Your task to perform on an android device: set the stopwatch Image 0: 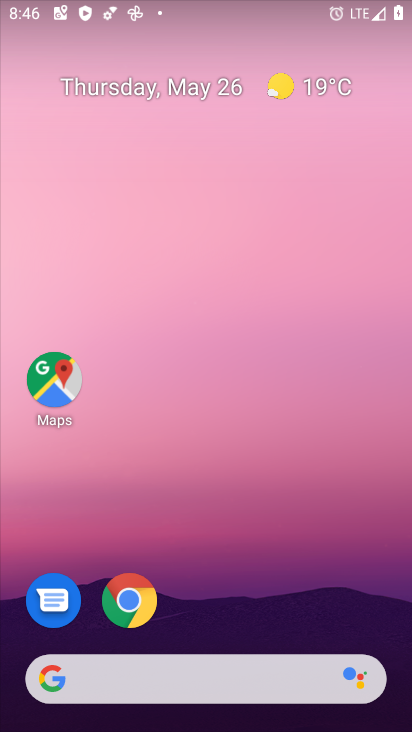
Step 0: press home button
Your task to perform on an android device: set the stopwatch Image 1: 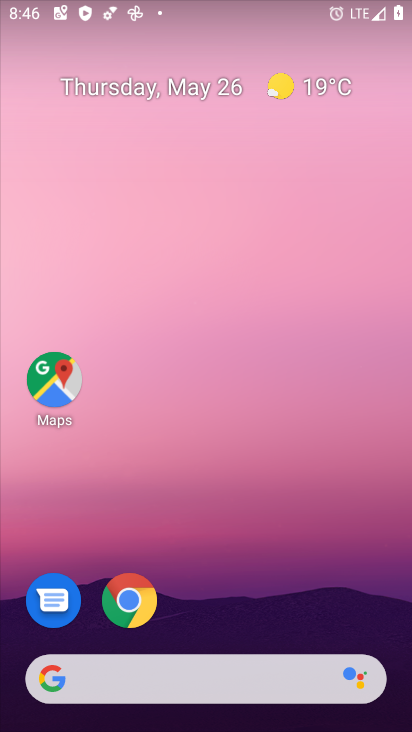
Step 1: drag from (271, 632) to (219, 309)
Your task to perform on an android device: set the stopwatch Image 2: 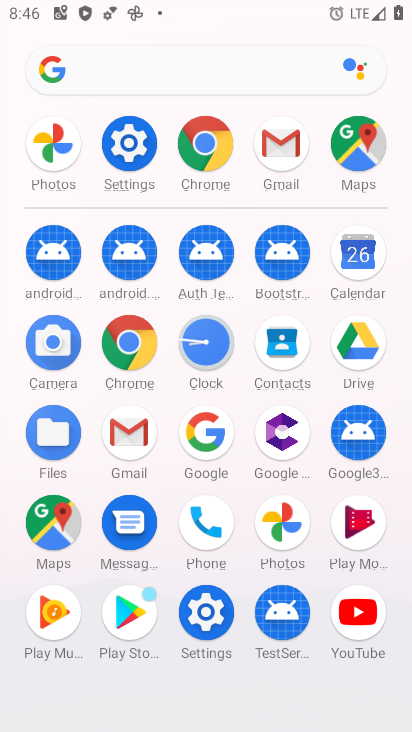
Step 2: click (211, 345)
Your task to perform on an android device: set the stopwatch Image 3: 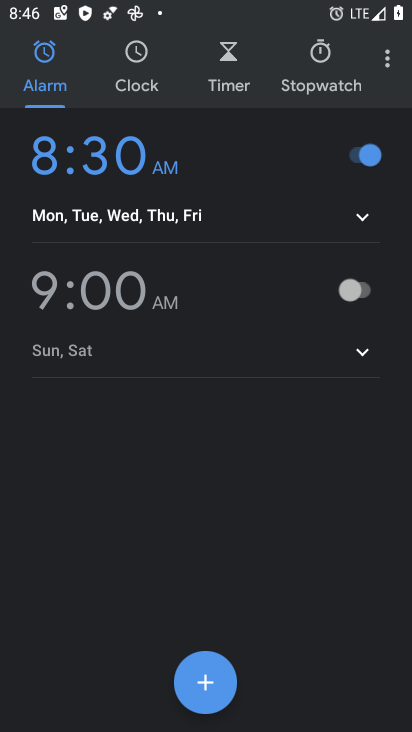
Step 3: click (319, 58)
Your task to perform on an android device: set the stopwatch Image 4: 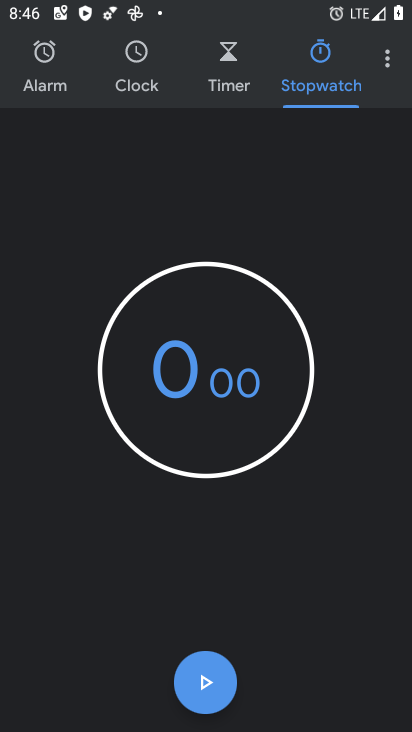
Step 4: click (190, 380)
Your task to perform on an android device: set the stopwatch Image 5: 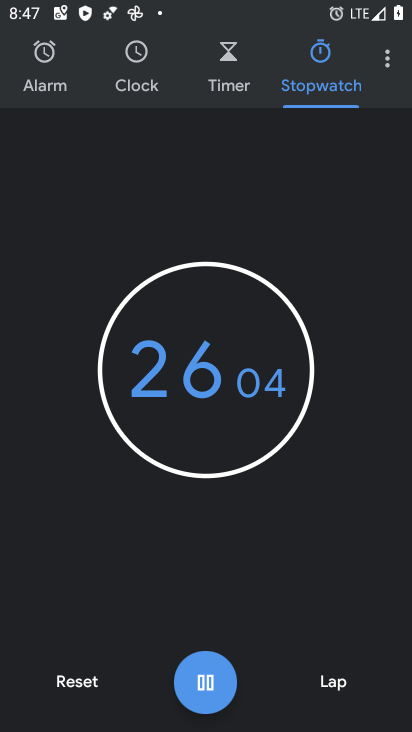
Step 5: task complete